Your task to perform on an android device: Go to Google Image 0: 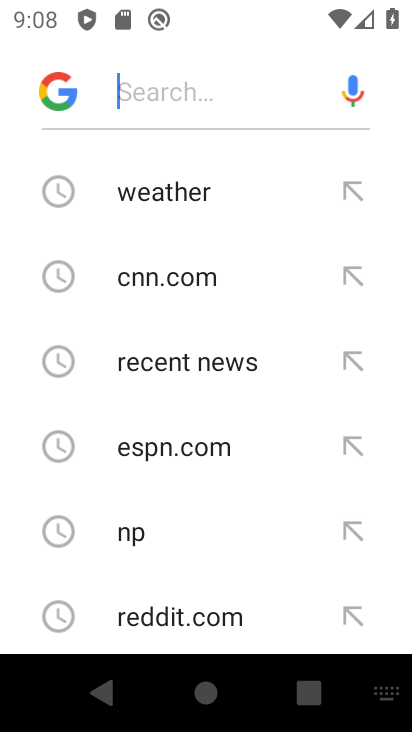
Step 0: task complete